Your task to perform on an android device: Check the news Image 0: 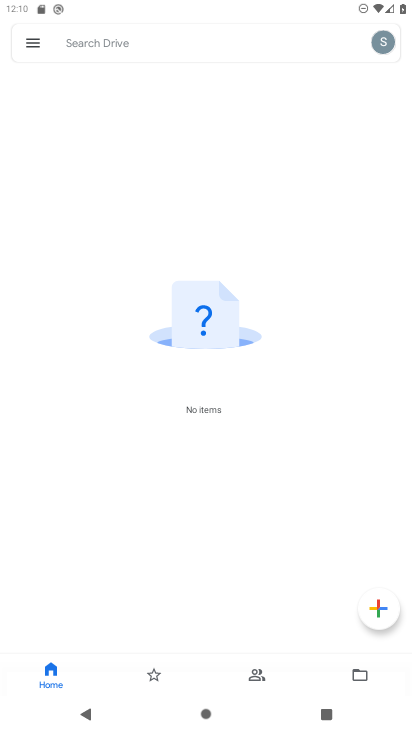
Step 0: press home button
Your task to perform on an android device: Check the news Image 1: 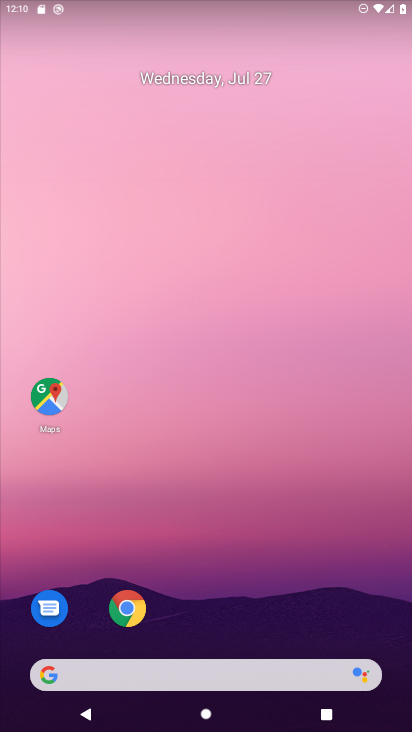
Step 1: task complete